Your task to perform on an android device: Open Chrome and go to settings Image 0: 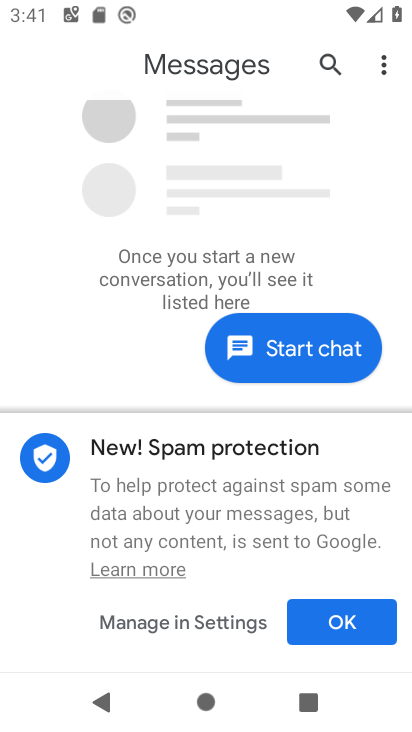
Step 0: press home button
Your task to perform on an android device: Open Chrome and go to settings Image 1: 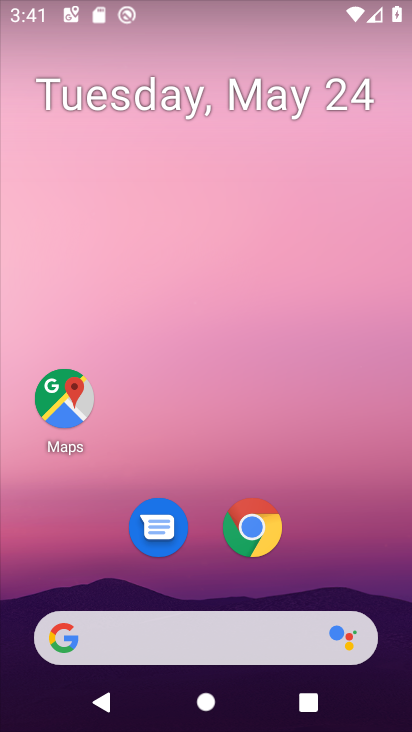
Step 1: click (247, 531)
Your task to perform on an android device: Open Chrome and go to settings Image 2: 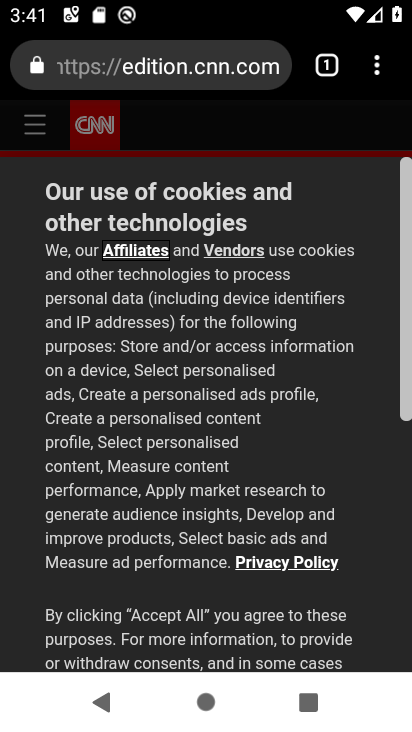
Step 2: click (379, 69)
Your task to perform on an android device: Open Chrome and go to settings Image 3: 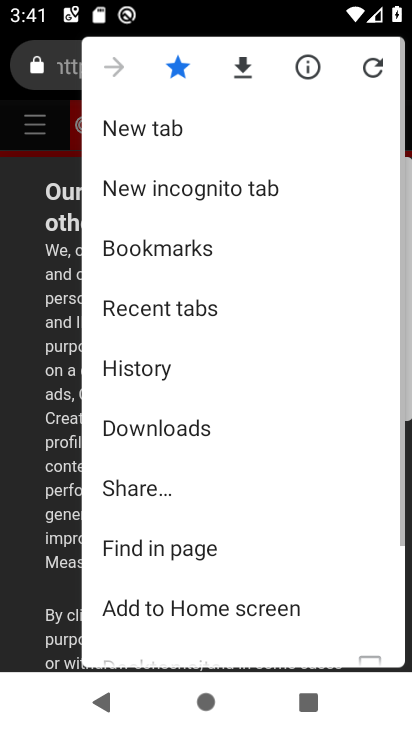
Step 3: drag from (250, 544) to (240, 145)
Your task to perform on an android device: Open Chrome and go to settings Image 4: 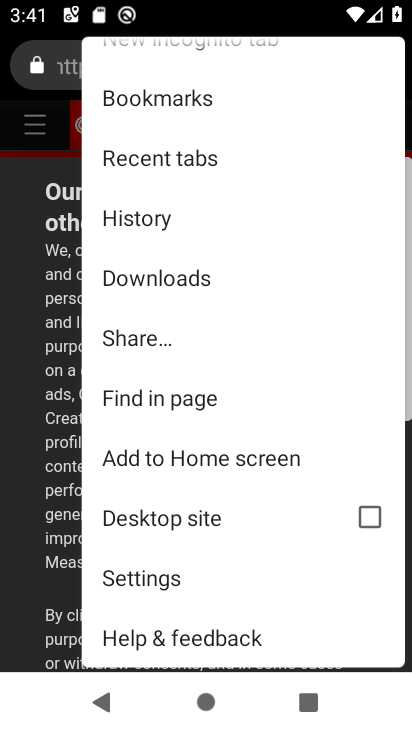
Step 4: click (151, 587)
Your task to perform on an android device: Open Chrome and go to settings Image 5: 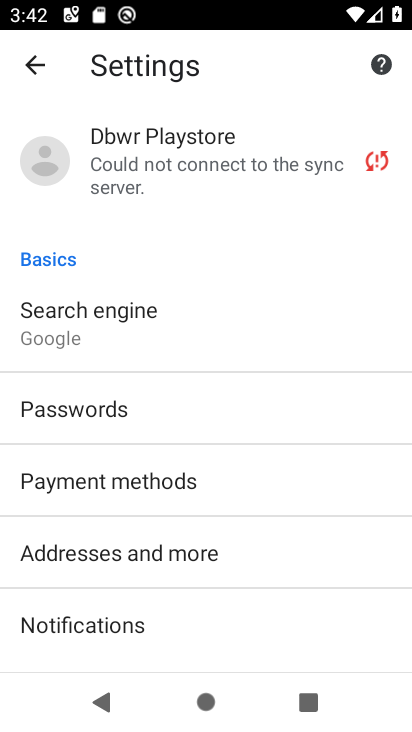
Step 5: task complete